Your task to perform on an android device: Turn on the flashlight Image 0: 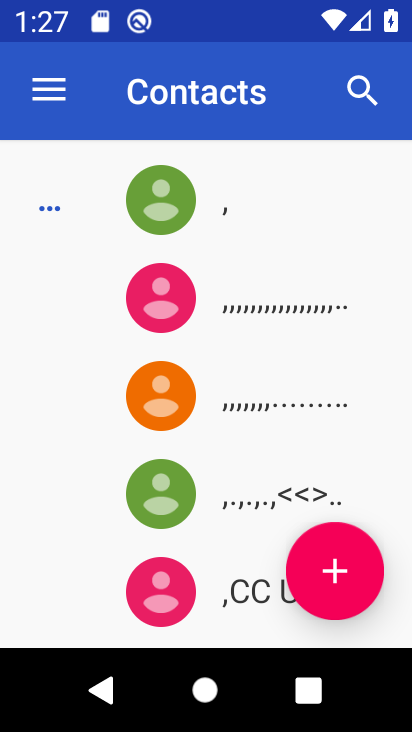
Step 0: press home button
Your task to perform on an android device: Turn on the flashlight Image 1: 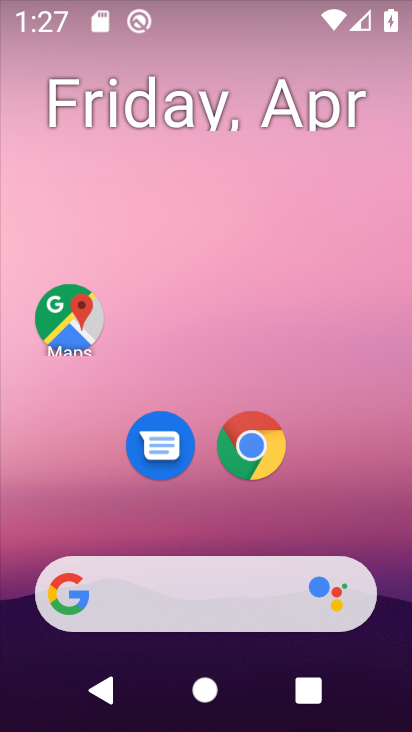
Step 1: drag from (269, 2) to (261, 398)
Your task to perform on an android device: Turn on the flashlight Image 2: 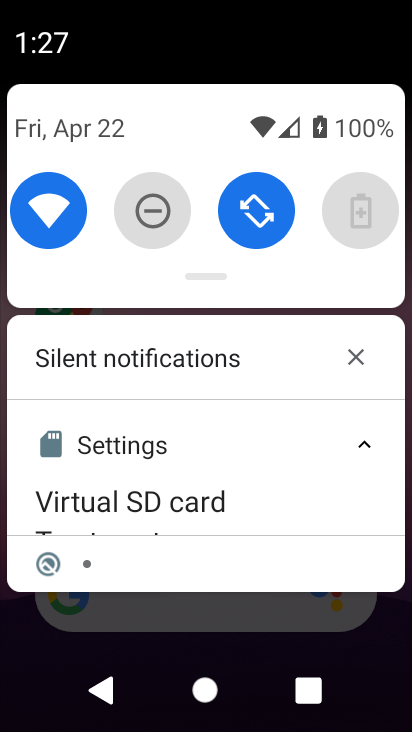
Step 2: drag from (205, 137) to (193, 426)
Your task to perform on an android device: Turn on the flashlight Image 3: 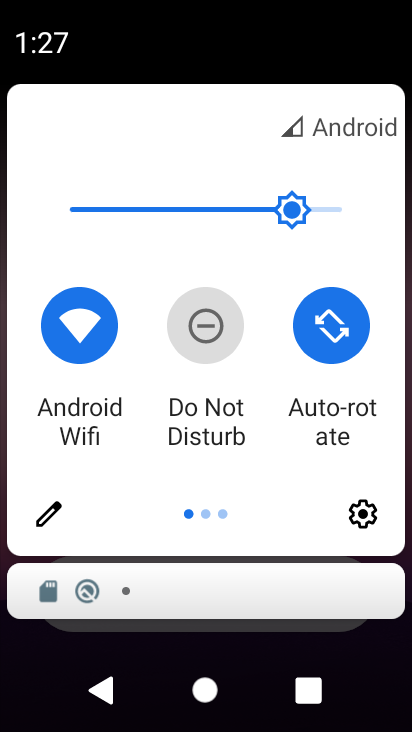
Step 3: click (63, 526)
Your task to perform on an android device: Turn on the flashlight Image 4: 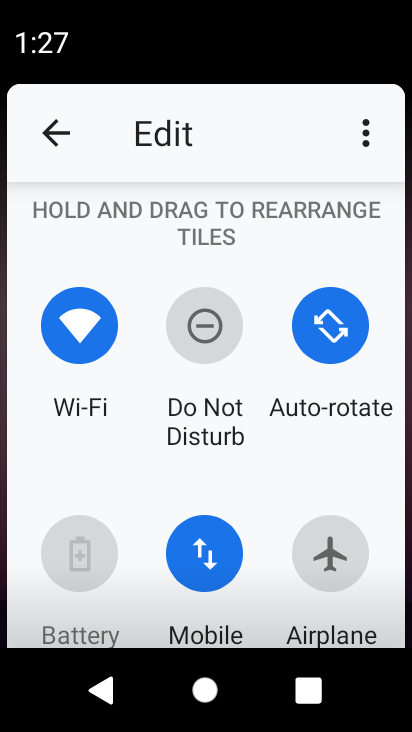
Step 4: task complete